Your task to perform on an android device: search for starred emails in the gmail app Image 0: 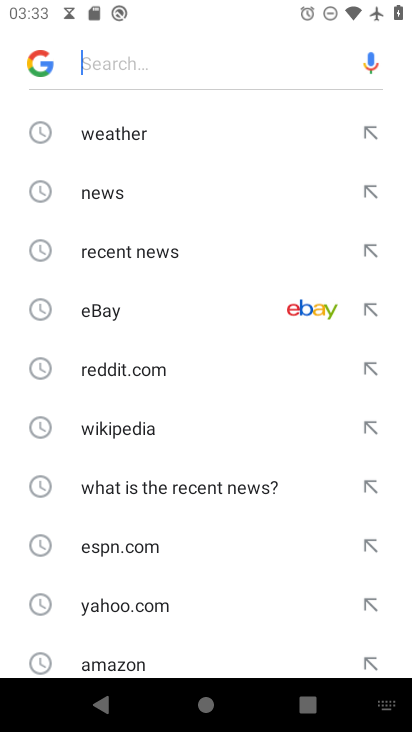
Step 0: press home button
Your task to perform on an android device: search for starred emails in the gmail app Image 1: 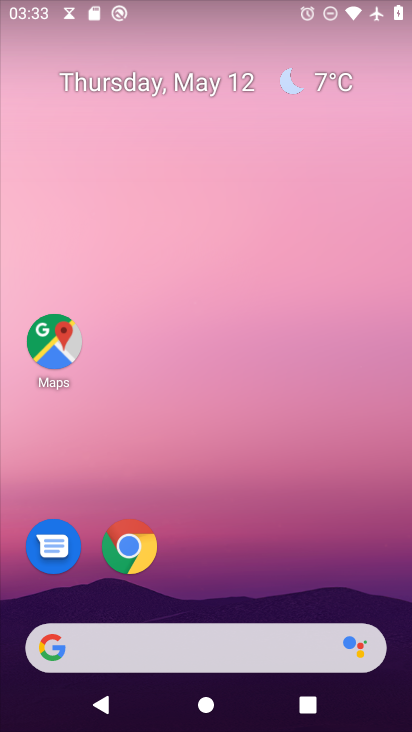
Step 1: drag from (156, 657) to (278, 160)
Your task to perform on an android device: search for starred emails in the gmail app Image 2: 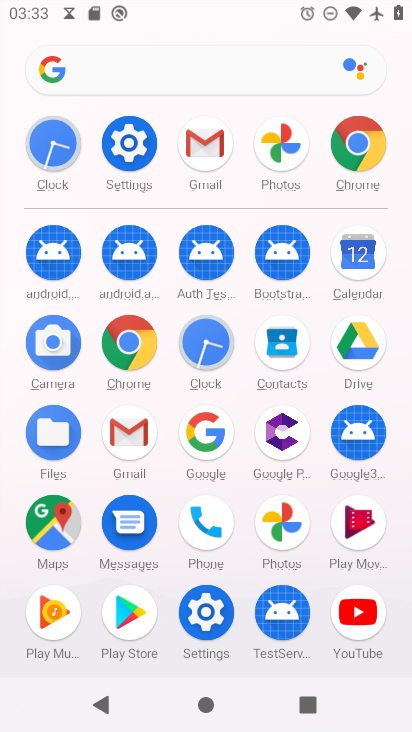
Step 2: click (205, 154)
Your task to perform on an android device: search for starred emails in the gmail app Image 3: 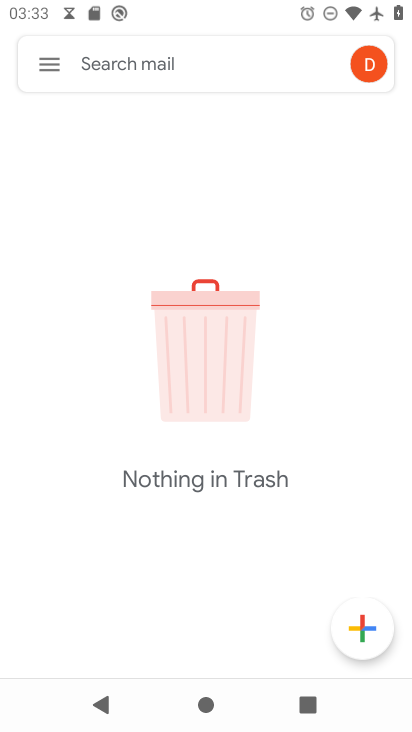
Step 3: click (45, 63)
Your task to perform on an android device: search for starred emails in the gmail app Image 4: 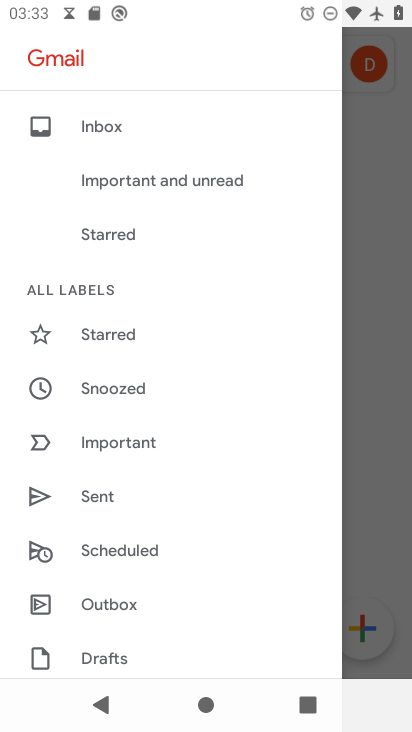
Step 4: click (101, 331)
Your task to perform on an android device: search for starred emails in the gmail app Image 5: 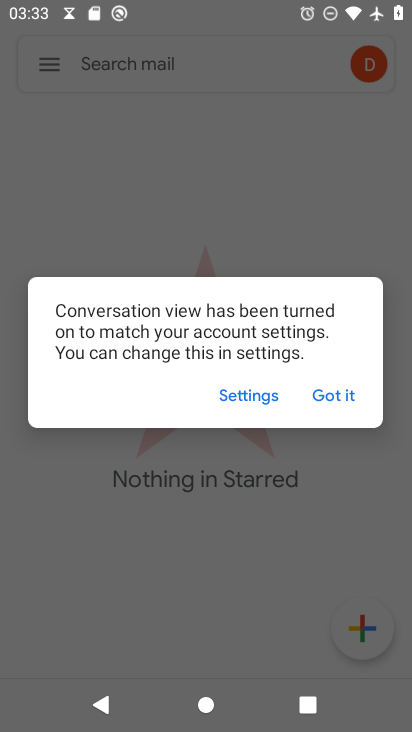
Step 5: click (332, 402)
Your task to perform on an android device: search for starred emails in the gmail app Image 6: 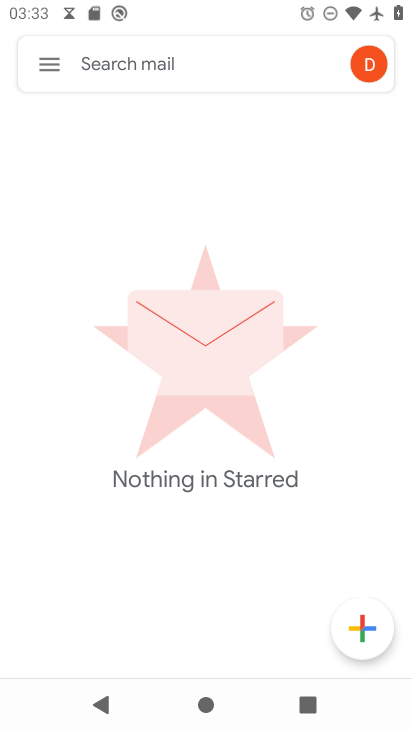
Step 6: task complete